Your task to perform on an android device: Open Youtube and go to "Your channel" Image 0: 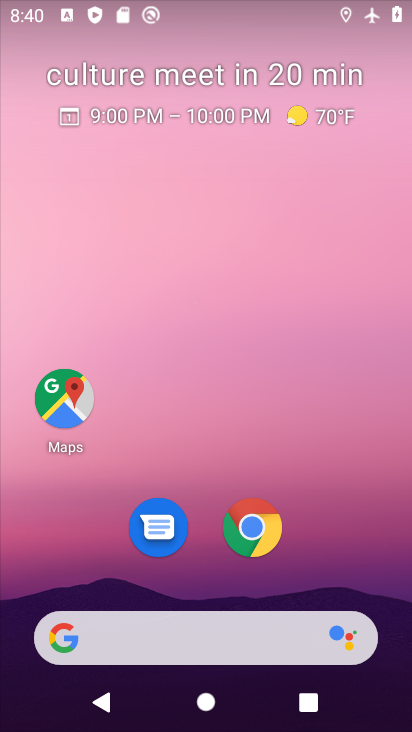
Step 0: drag from (217, 549) to (239, 378)
Your task to perform on an android device: Open Youtube and go to "Your channel" Image 1: 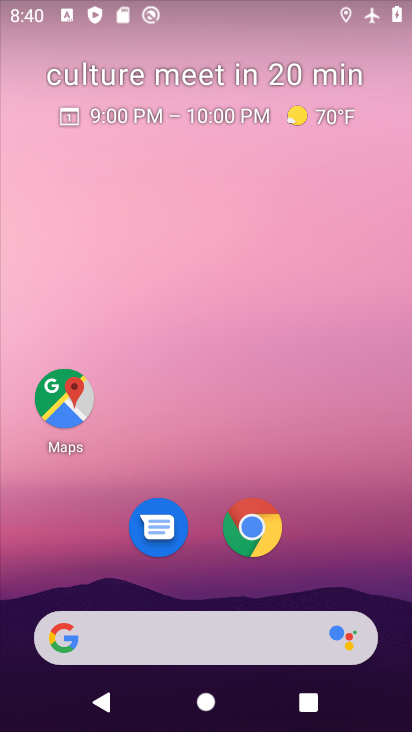
Step 1: drag from (237, 646) to (257, 271)
Your task to perform on an android device: Open Youtube and go to "Your channel" Image 2: 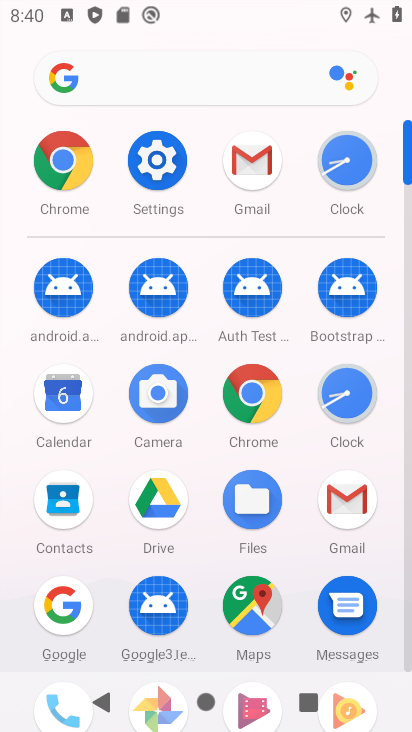
Step 2: drag from (237, 553) to (273, 73)
Your task to perform on an android device: Open Youtube and go to "Your channel" Image 3: 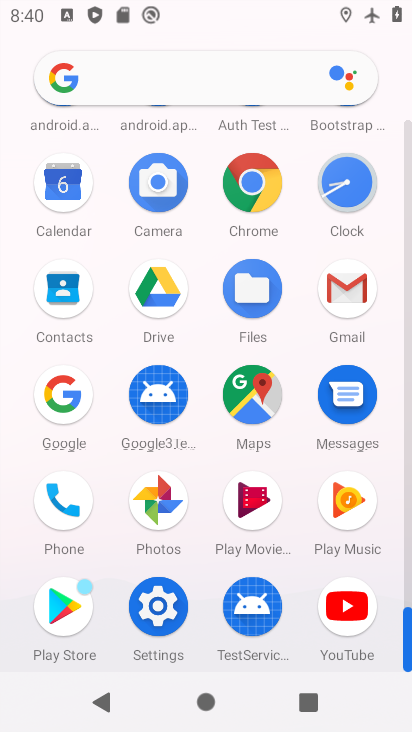
Step 3: click (352, 599)
Your task to perform on an android device: Open Youtube and go to "Your channel" Image 4: 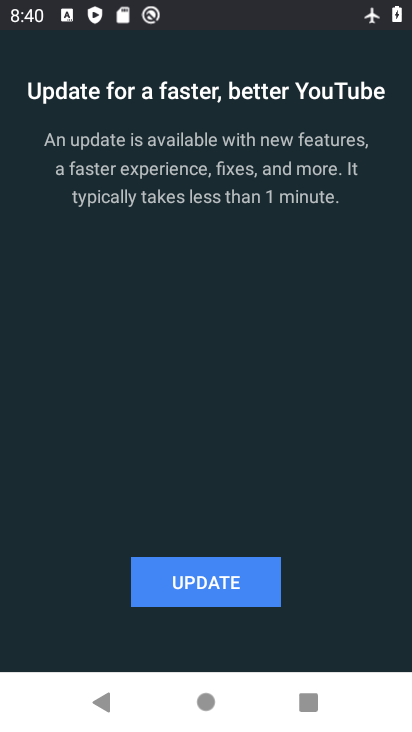
Step 4: click (255, 573)
Your task to perform on an android device: Open Youtube and go to "Your channel" Image 5: 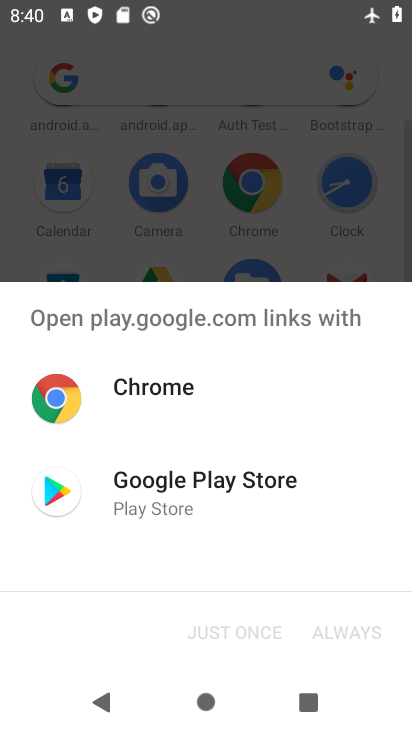
Step 5: click (199, 493)
Your task to perform on an android device: Open Youtube and go to "Your channel" Image 6: 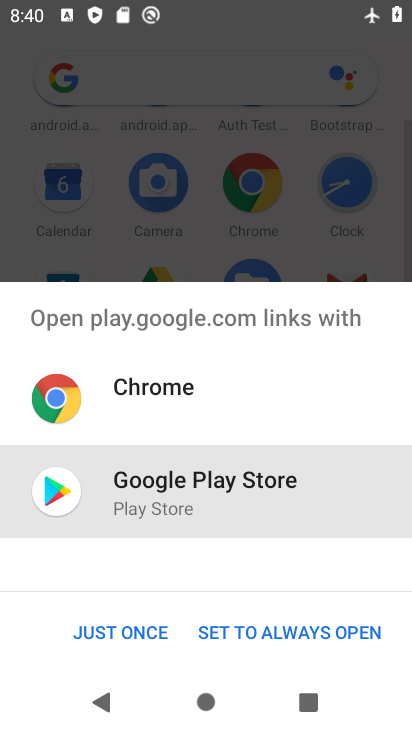
Step 6: drag from (231, 632) to (8, 609)
Your task to perform on an android device: Open Youtube and go to "Your channel" Image 7: 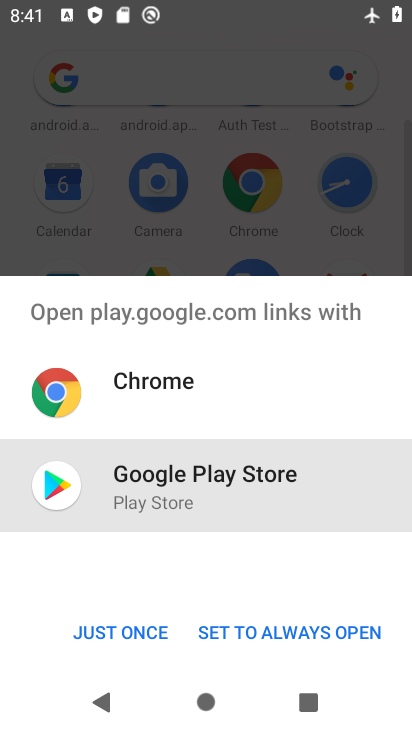
Step 7: click (130, 633)
Your task to perform on an android device: Open Youtube and go to "Your channel" Image 8: 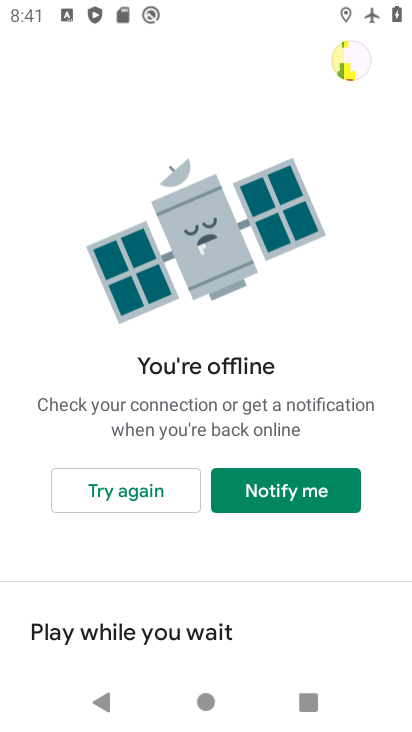
Step 8: task complete